Your task to perform on an android device: What's on my calendar today? Image 0: 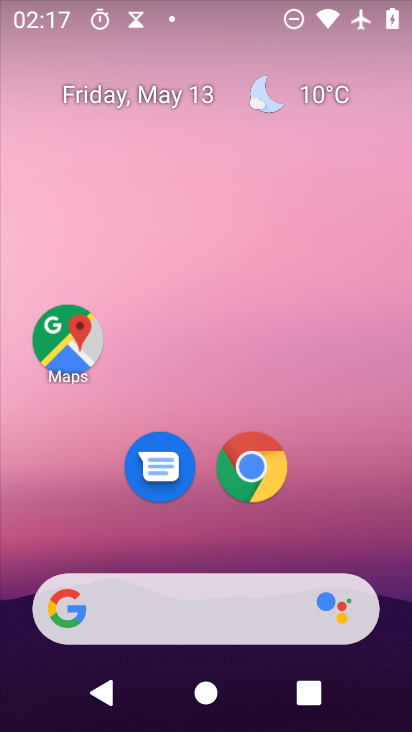
Step 0: press home button
Your task to perform on an android device: What's on my calendar today? Image 1: 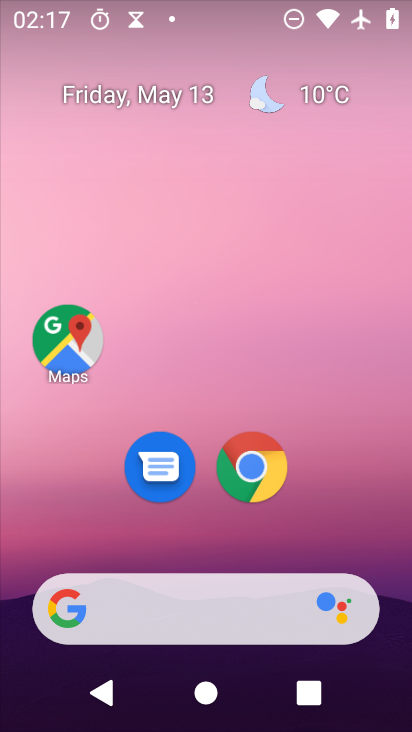
Step 1: click (142, 90)
Your task to perform on an android device: What's on my calendar today? Image 2: 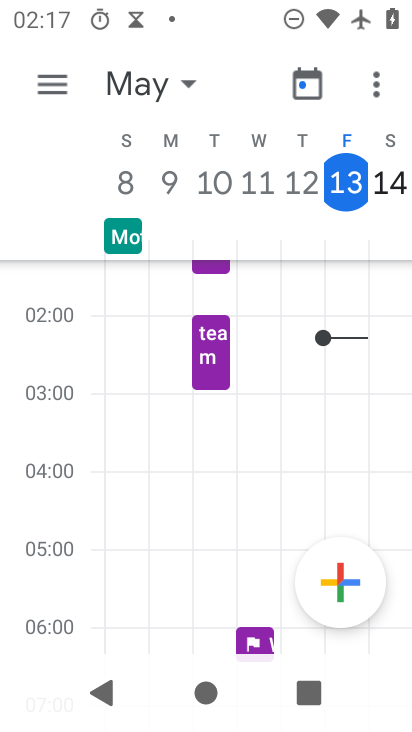
Step 2: drag from (52, 494) to (52, 295)
Your task to perform on an android device: What's on my calendar today? Image 3: 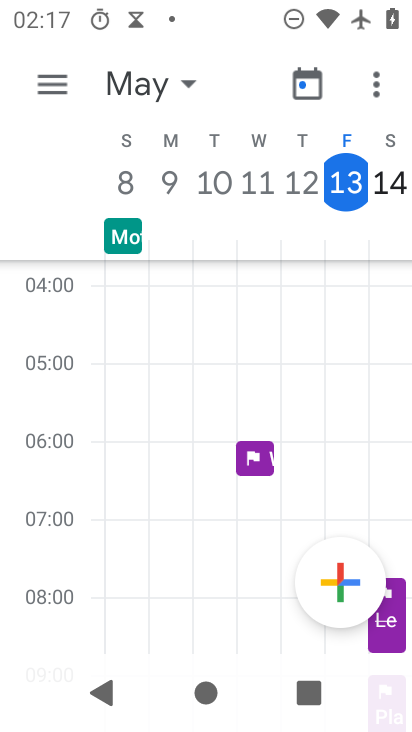
Step 3: drag from (50, 406) to (44, 252)
Your task to perform on an android device: What's on my calendar today? Image 4: 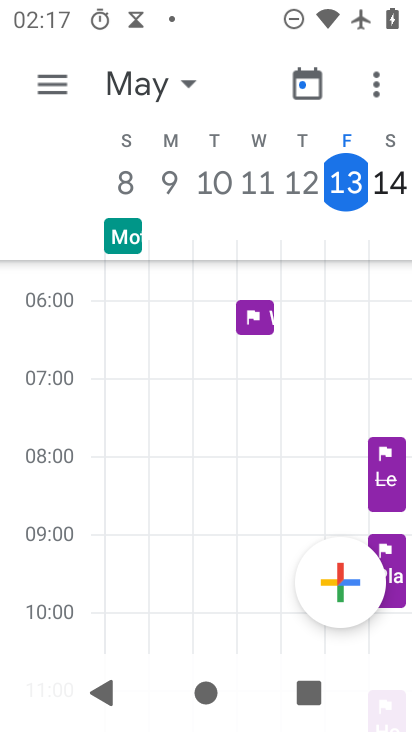
Step 4: drag from (52, 428) to (59, 294)
Your task to perform on an android device: What's on my calendar today? Image 5: 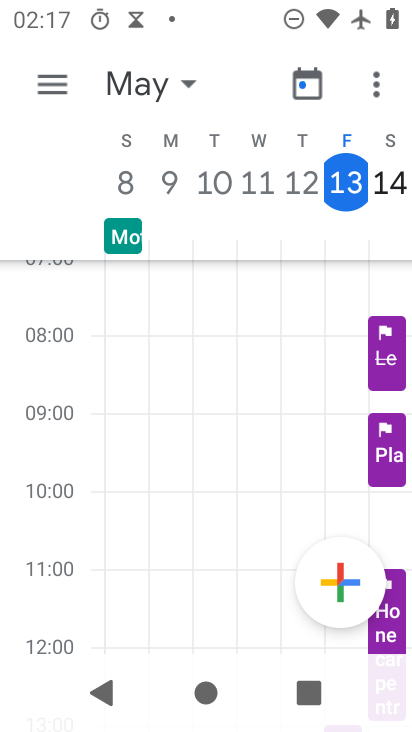
Step 5: click (58, 341)
Your task to perform on an android device: What's on my calendar today? Image 6: 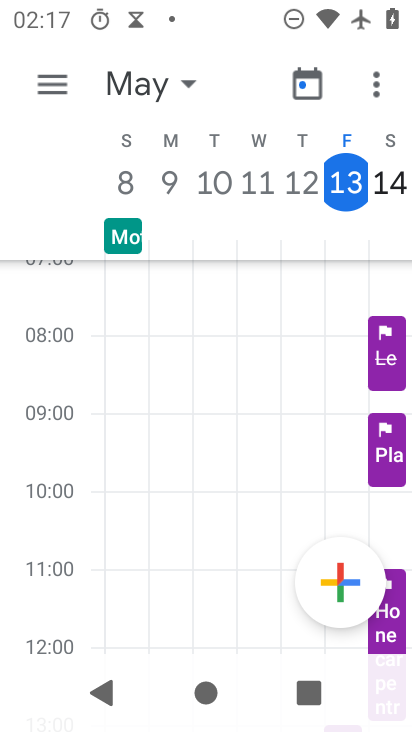
Step 6: task complete